Your task to perform on an android device: Open calendar and show me the fourth week of next month Image 0: 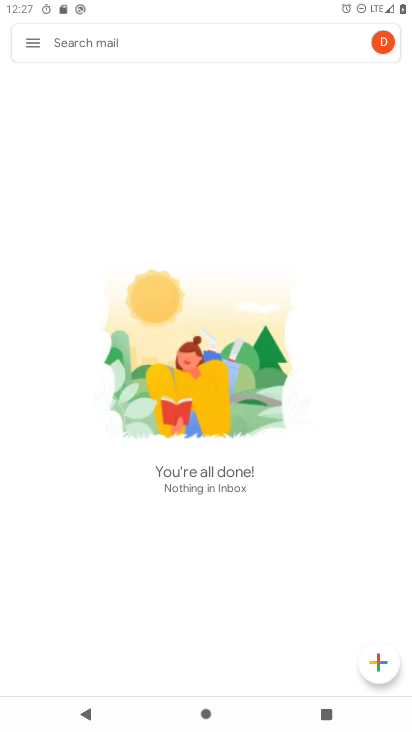
Step 0: press home button
Your task to perform on an android device: Open calendar and show me the fourth week of next month Image 1: 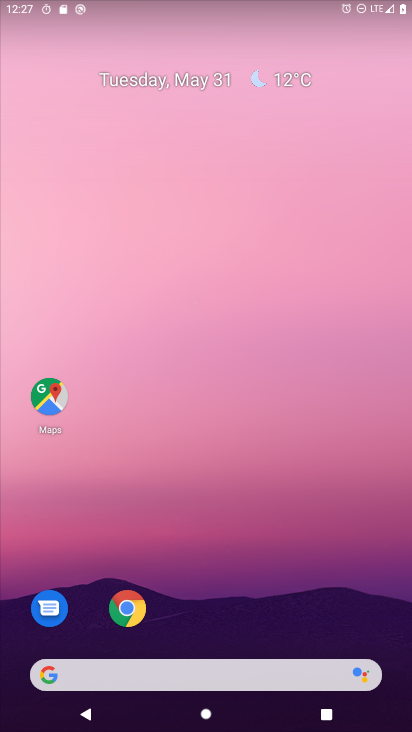
Step 1: drag from (273, 633) to (234, 12)
Your task to perform on an android device: Open calendar and show me the fourth week of next month Image 2: 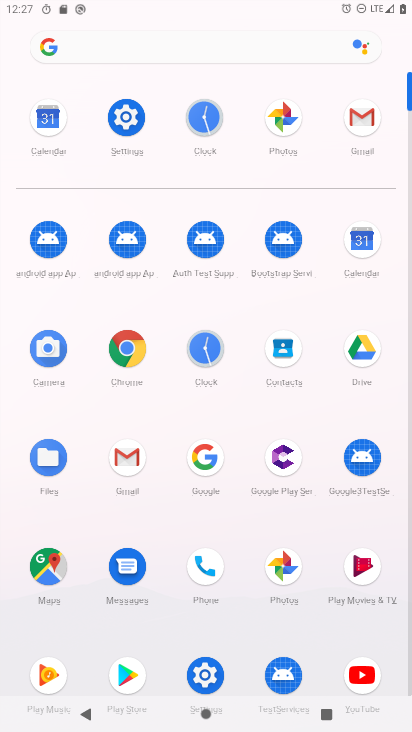
Step 2: click (44, 127)
Your task to perform on an android device: Open calendar and show me the fourth week of next month Image 3: 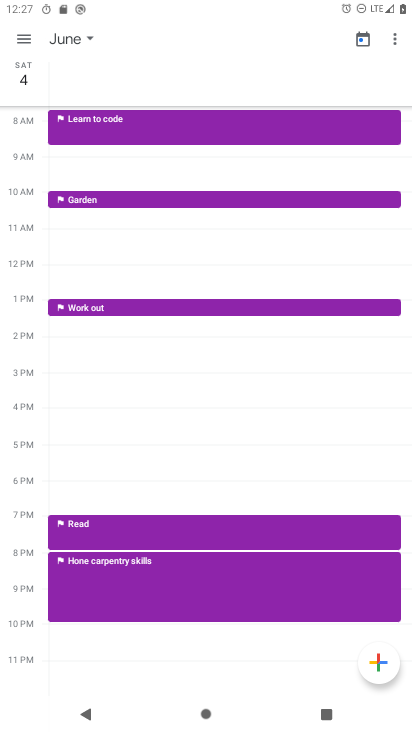
Step 3: click (23, 42)
Your task to perform on an android device: Open calendar and show me the fourth week of next month Image 4: 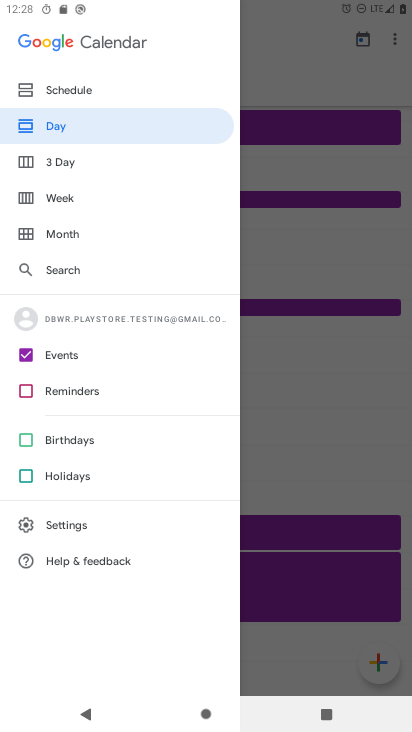
Step 4: click (43, 196)
Your task to perform on an android device: Open calendar and show me the fourth week of next month Image 5: 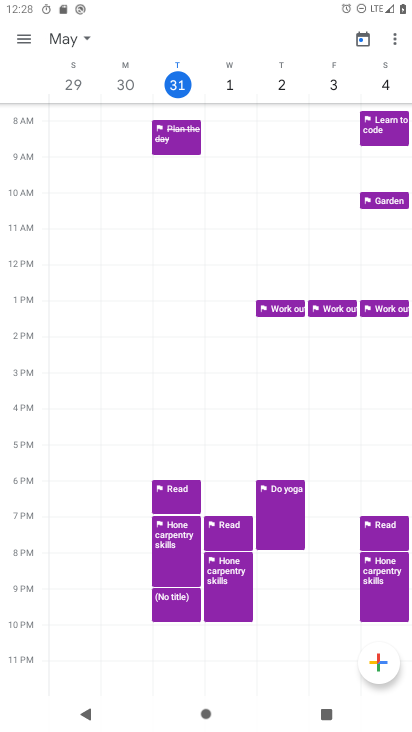
Step 5: task complete